Your task to perform on an android device: Open the phone app and click the voicemail tab. Image 0: 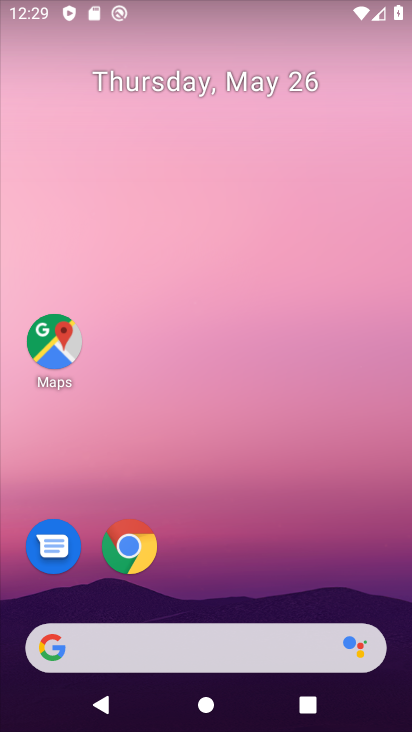
Step 0: drag from (324, 579) to (286, 33)
Your task to perform on an android device: Open the phone app and click the voicemail tab. Image 1: 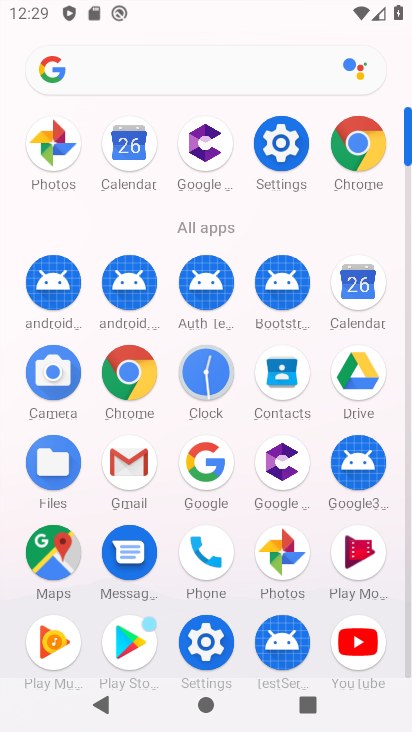
Step 1: click (194, 556)
Your task to perform on an android device: Open the phone app and click the voicemail tab. Image 2: 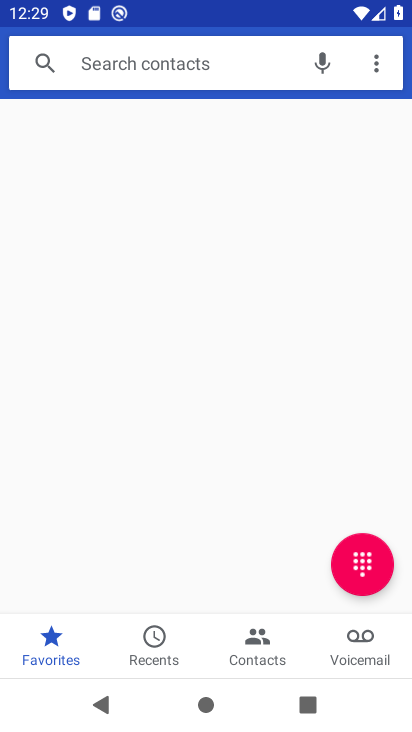
Step 2: click (355, 649)
Your task to perform on an android device: Open the phone app and click the voicemail tab. Image 3: 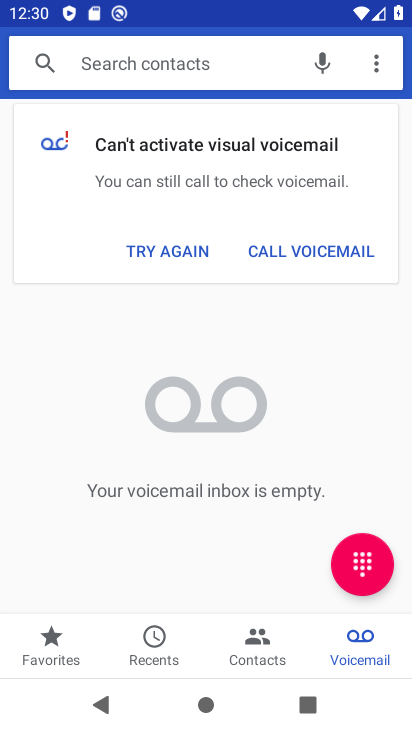
Step 3: task complete